Your task to perform on an android device: Open Yahoo.com Image 0: 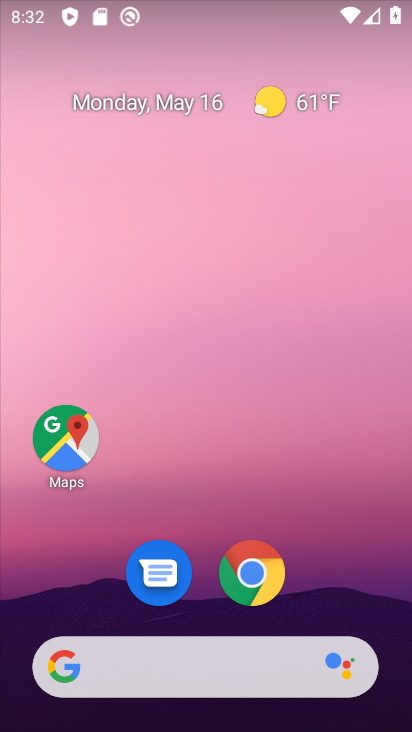
Step 0: click (248, 575)
Your task to perform on an android device: Open Yahoo.com Image 1: 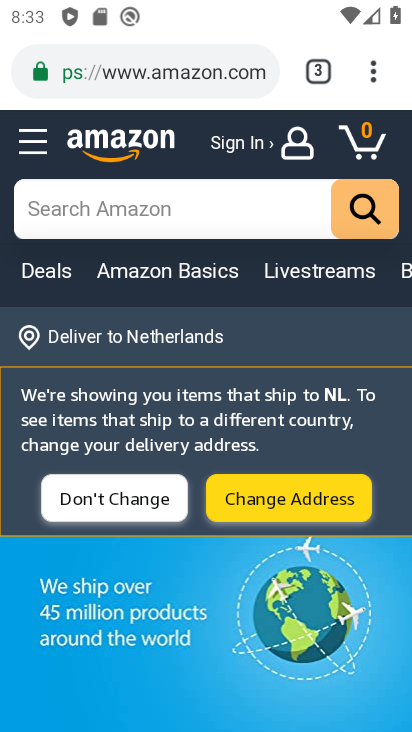
Step 1: click (376, 81)
Your task to perform on an android device: Open Yahoo.com Image 2: 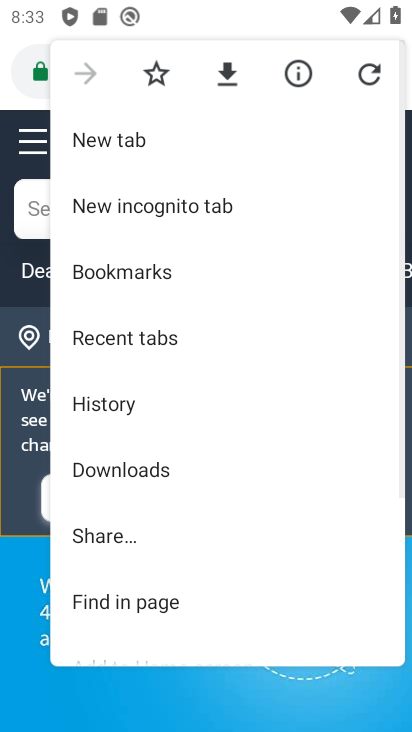
Step 2: click (131, 139)
Your task to perform on an android device: Open Yahoo.com Image 3: 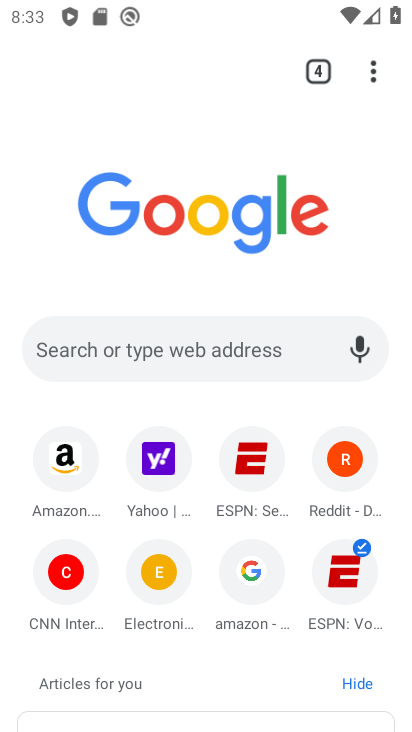
Step 3: click (164, 359)
Your task to perform on an android device: Open Yahoo.com Image 4: 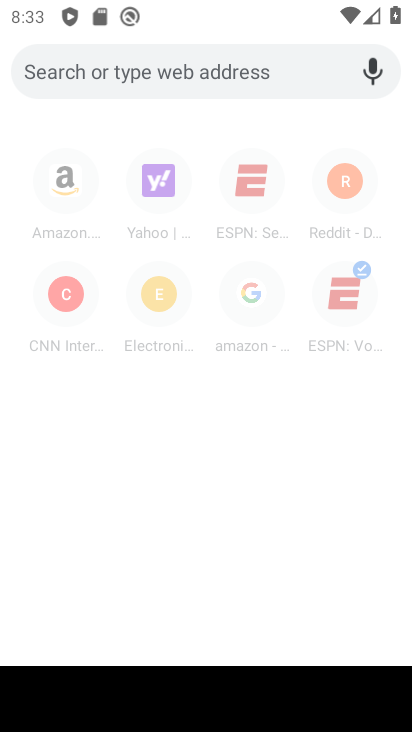
Step 4: type "Yahoo.com"
Your task to perform on an android device: Open Yahoo.com Image 5: 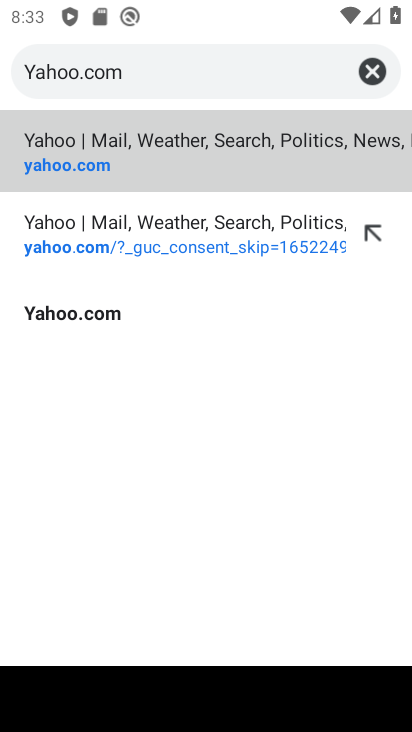
Step 5: click (97, 155)
Your task to perform on an android device: Open Yahoo.com Image 6: 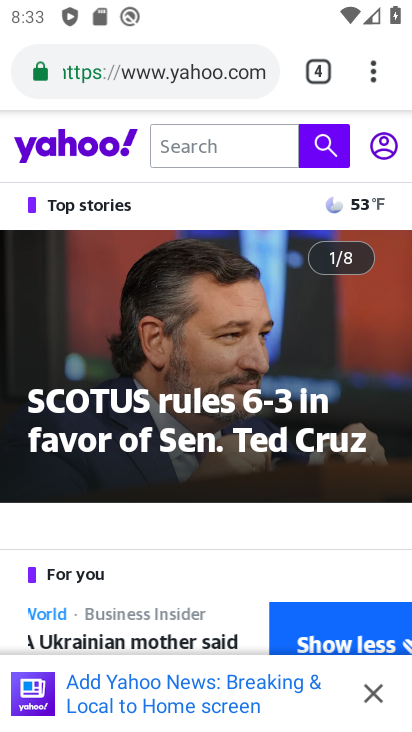
Step 6: task complete